Your task to perform on an android device: Open the stopwatch Image 0: 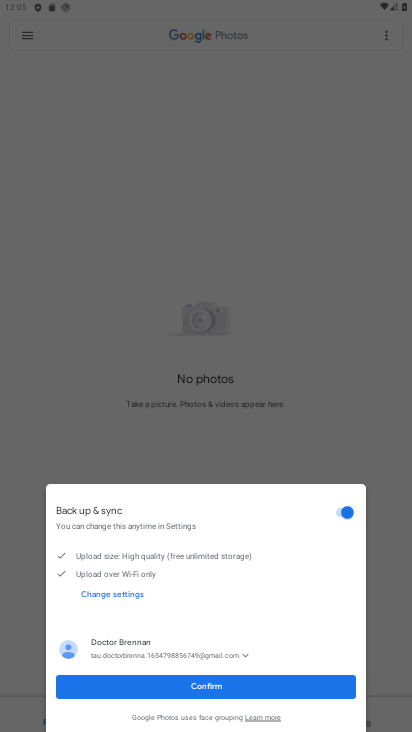
Step 0: press home button
Your task to perform on an android device: Open the stopwatch Image 1: 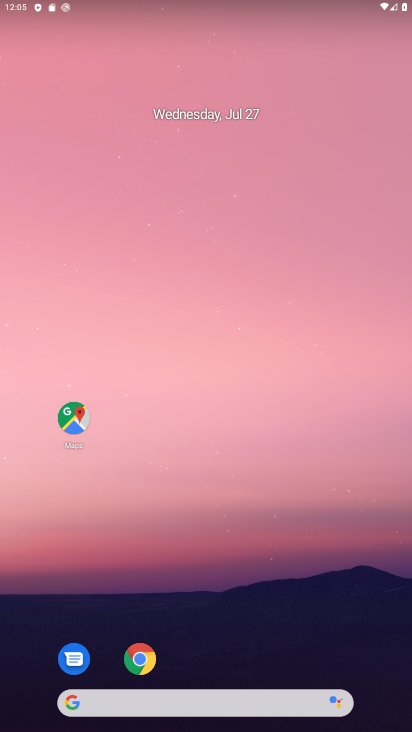
Step 1: drag from (305, 593) to (226, 58)
Your task to perform on an android device: Open the stopwatch Image 2: 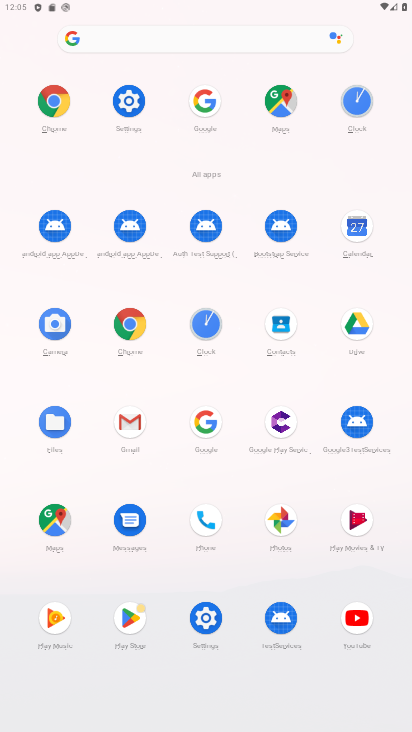
Step 2: click (224, 329)
Your task to perform on an android device: Open the stopwatch Image 3: 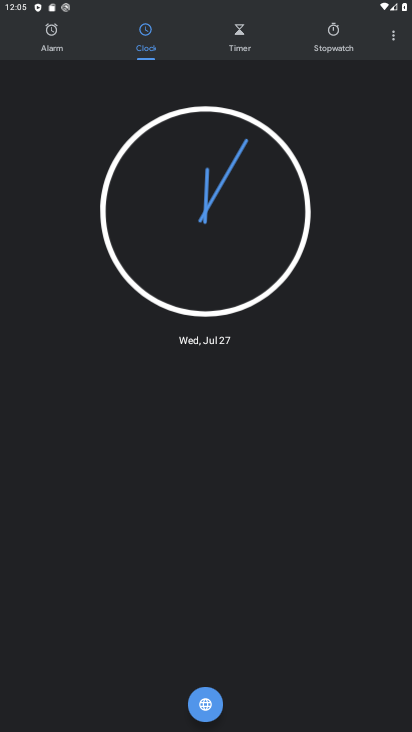
Step 3: click (330, 47)
Your task to perform on an android device: Open the stopwatch Image 4: 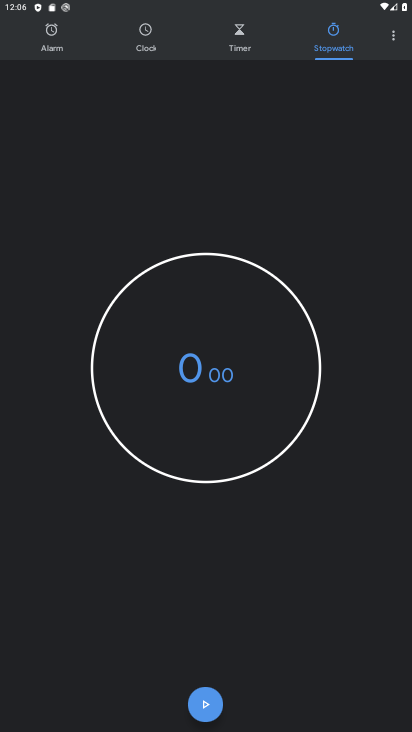
Step 4: task complete